Your task to perform on an android device: Open Maps and search for coffee Image 0: 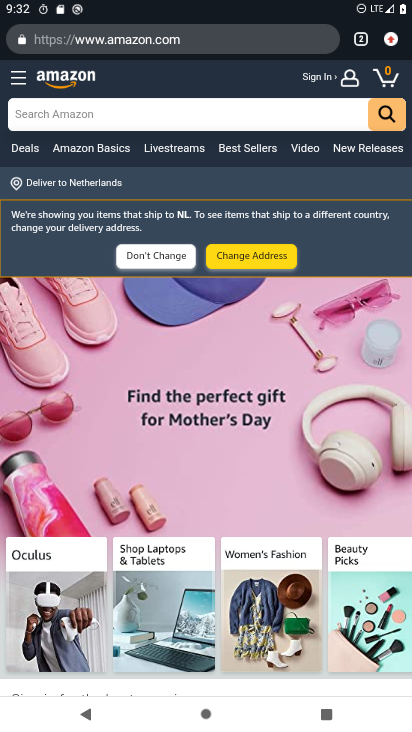
Step 0: press home button
Your task to perform on an android device: Open Maps and search for coffee Image 1: 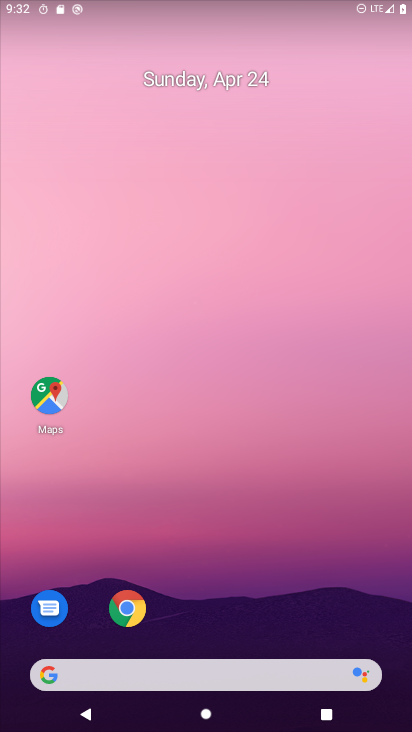
Step 1: click (53, 397)
Your task to perform on an android device: Open Maps and search for coffee Image 2: 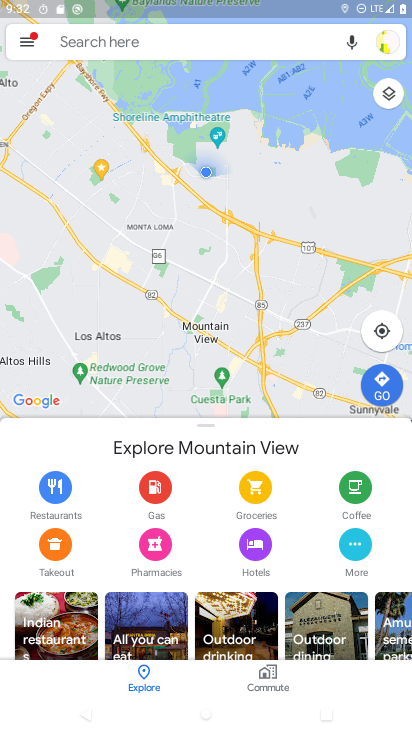
Step 2: click (191, 36)
Your task to perform on an android device: Open Maps and search for coffee Image 3: 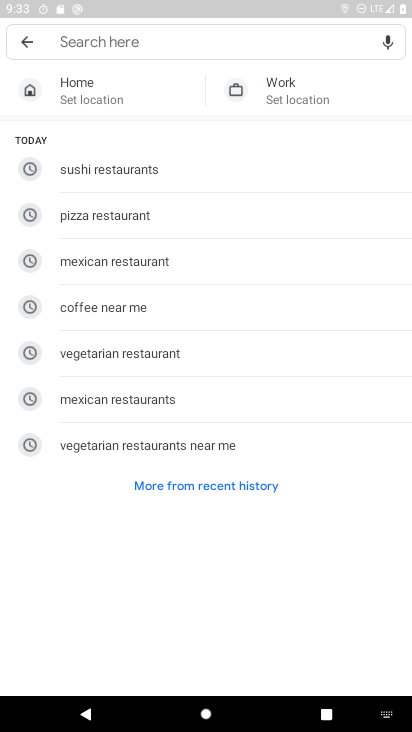
Step 3: click (192, 305)
Your task to perform on an android device: Open Maps and search for coffee Image 4: 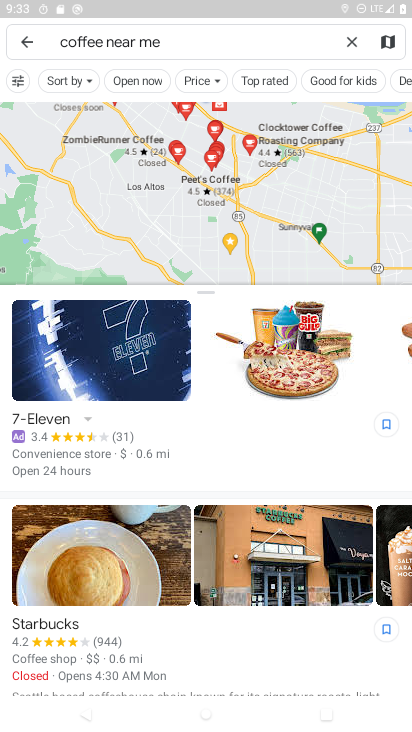
Step 4: task complete